Your task to perform on an android device: read, delete, or share a saved page in the chrome app Image 0: 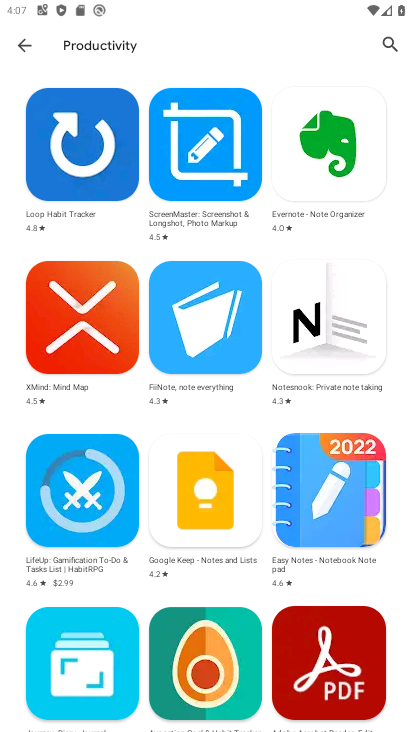
Step 0: press home button
Your task to perform on an android device: read, delete, or share a saved page in the chrome app Image 1: 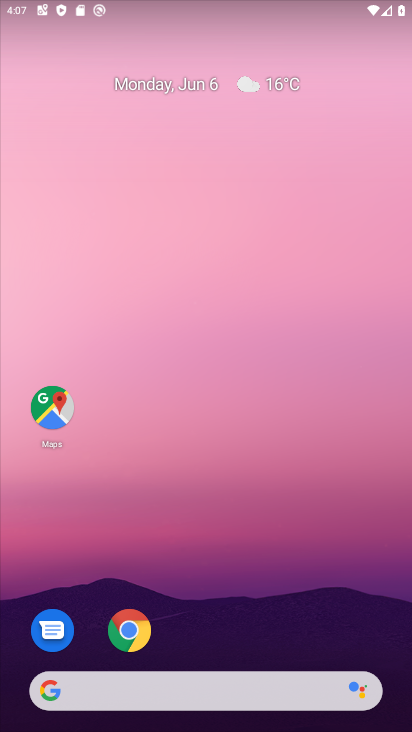
Step 1: click (129, 633)
Your task to perform on an android device: read, delete, or share a saved page in the chrome app Image 2: 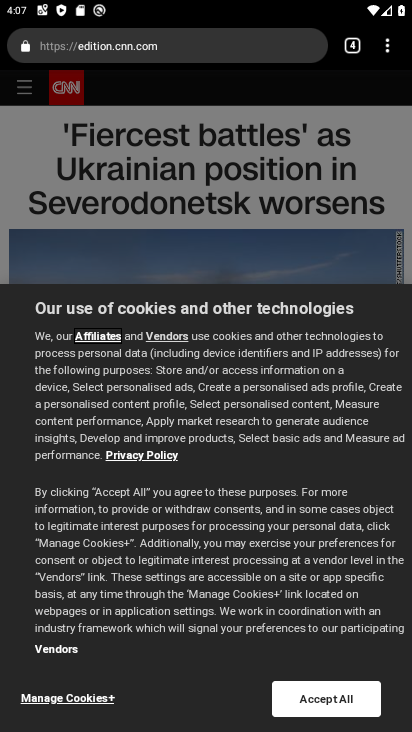
Step 2: drag from (387, 33) to (237, 291)
Your task to perform on an android device: read, delete, or share a saved page in the chrome app Image 3: 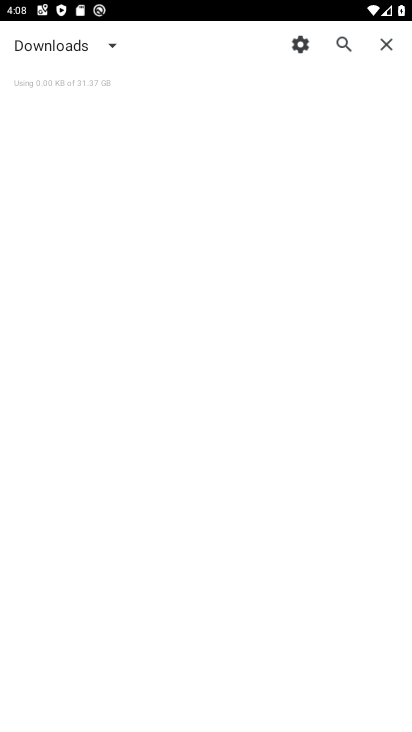
Step 3: click (85, 48)
Your task to perform on an android device: read, delete, or share a saved page in the chrome app Image 4: 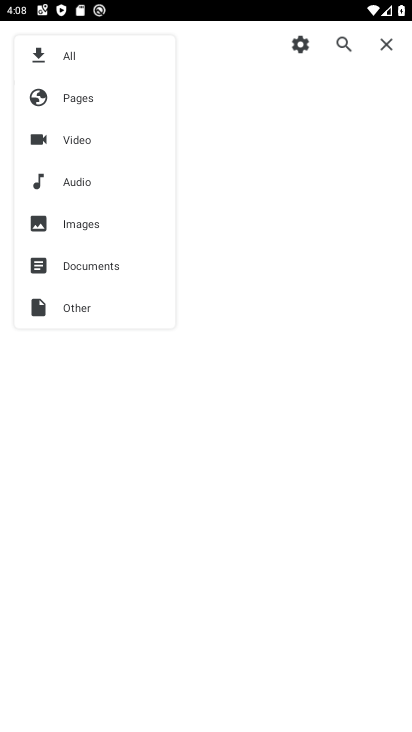
Step 4: click (80, 98)
Your task to perform on an android device: read, delete, or share a saved page in the chrome app Image 5: 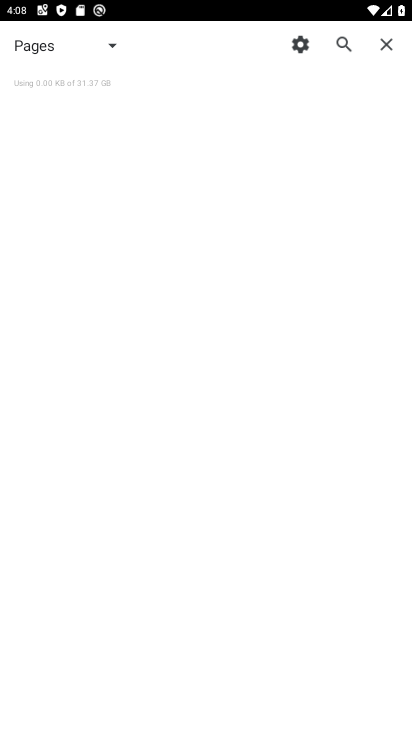
Step 5: task complete